Your task to perform on an android device: move an email to a new category in the gmail app Image 0: 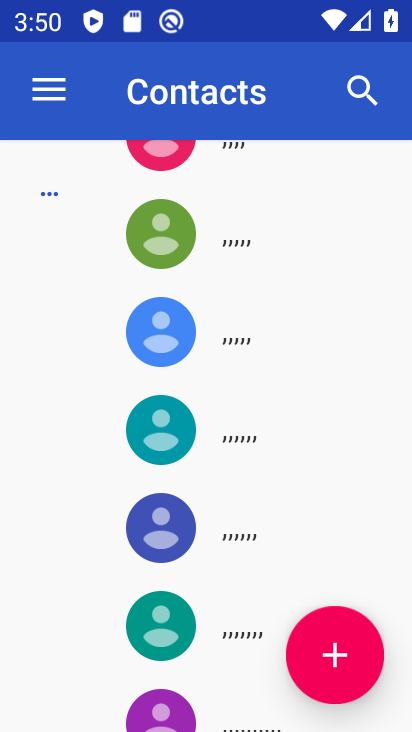
Step 0: press home button
Your task to perform on an android device: move an email to a new category in the gmail app Image 1: 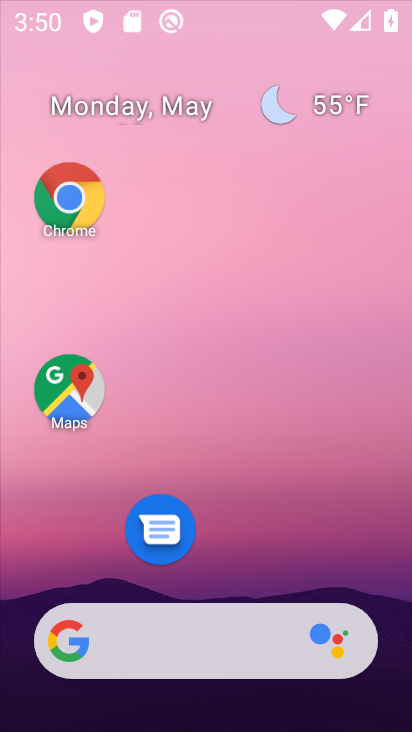
Step 1: drag from (193, 652) to (232, 101)
Your task to perform on an android device: move an email to a new category in the gmail app Image 2: 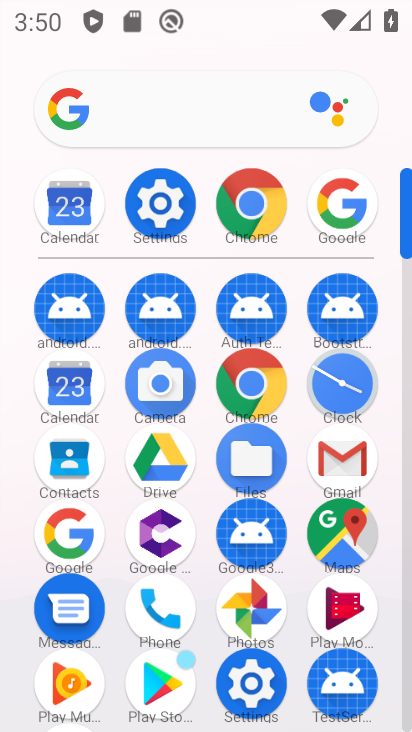
Step 2: click (344, 466)
Your task to perform on an android device: move an email to a new category in the gmail app Image 3: 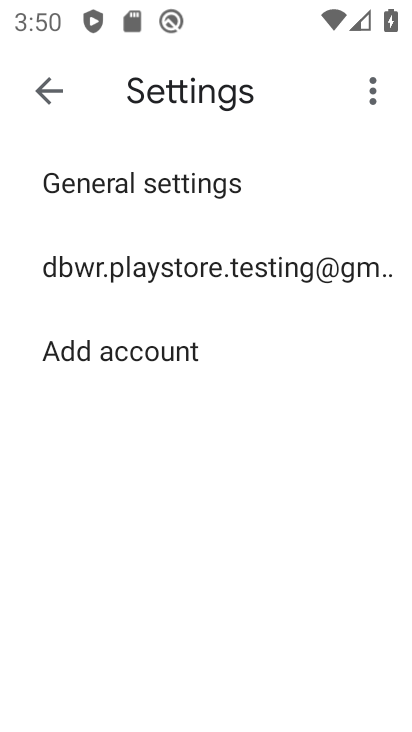
Step 3: click (54, 98)
Your task to perform on an android device: move an email to a new category in the gmail app Image 4: 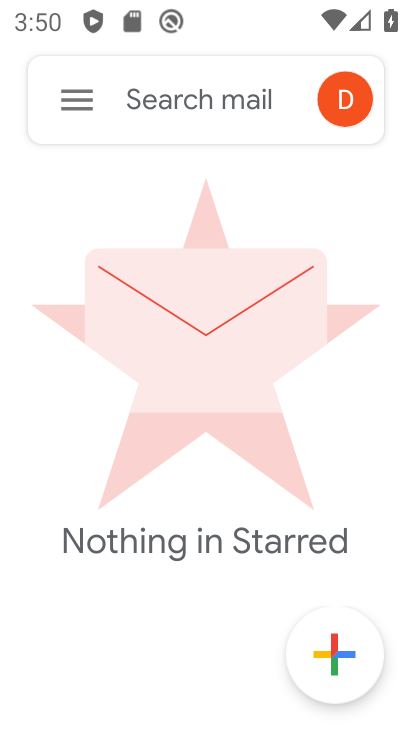
Step 4: click (76, 102)
Your task to perform on an android device: move an email to a new category in the gmail app Image 5: 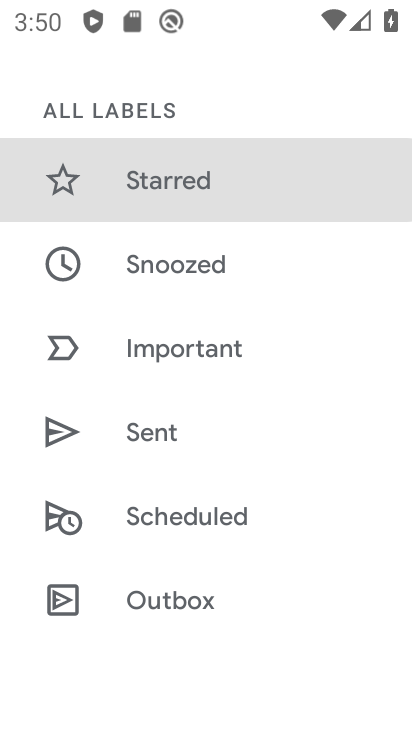
Step 5: drag from (212, 539) to (304, 255)
Your task to perform on an android device: move an email to a new category in the gmail app Image 6: 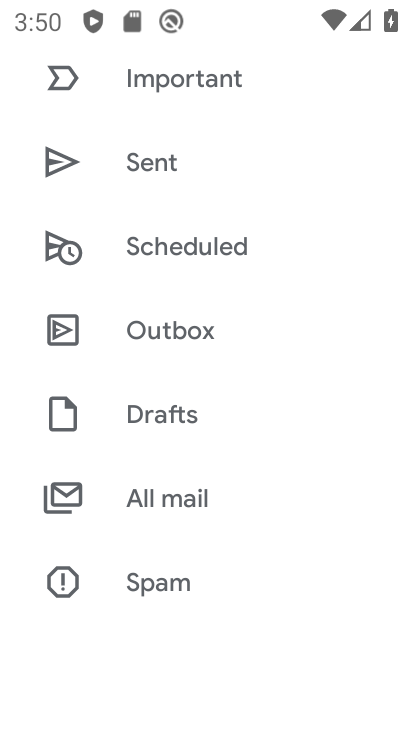
Step 6: click (187, 503)
Your task to perform on an android device: move an email to a new category in the gmail app Image 7: 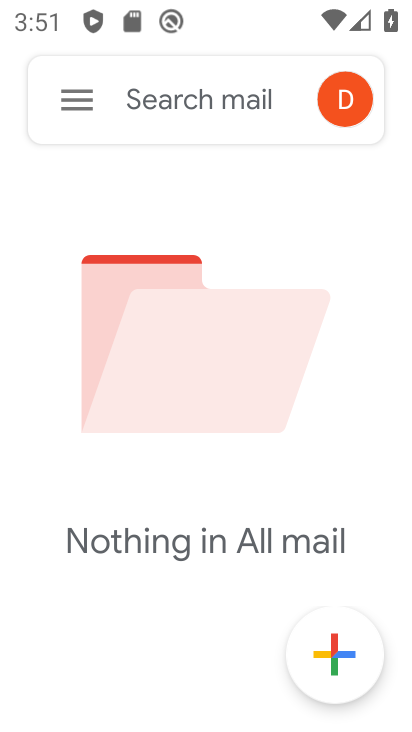
Step 7: task complete